Your task to perform on an android device: check storage Image 0: 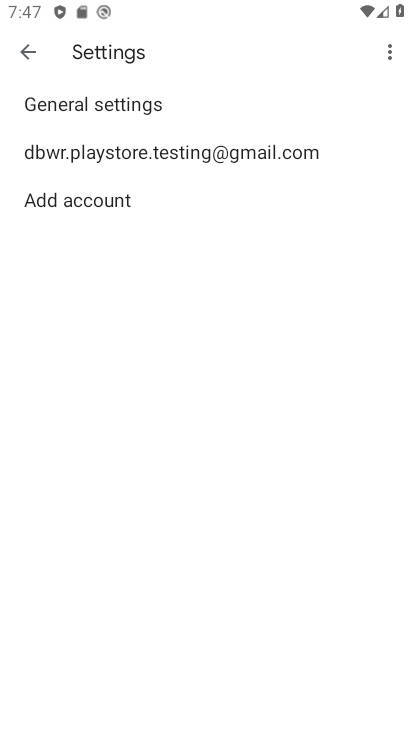
Step 0: press home button
Your task to perform on an android device: check storage Image 1: 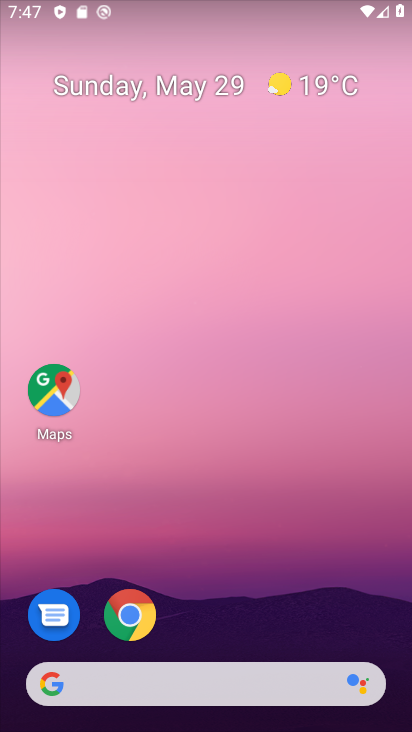
Step 1: drag from (92, 730) to (180, 52)
Your task to perform on an android device: check storage Image 2: 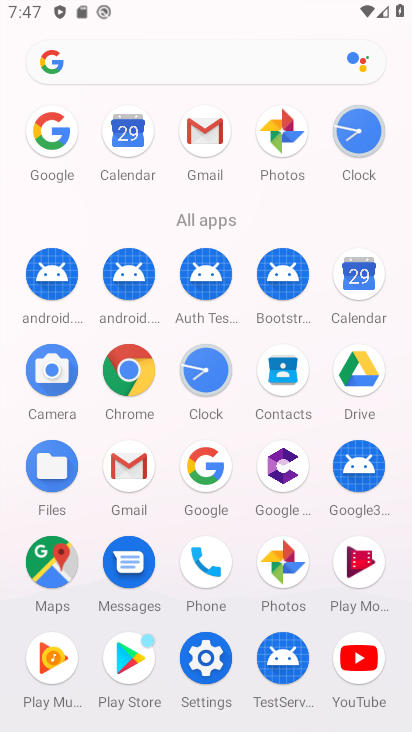
Step 2: click (216, 676)
Your task to perform on an android device: check storage Image 3: 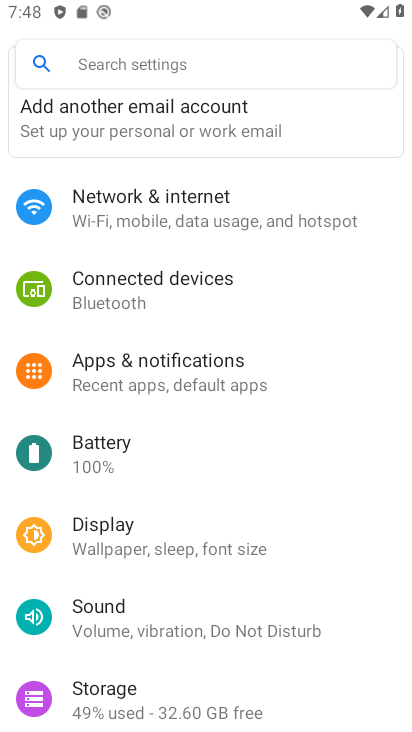
Step 3: click (186, 712)
Your task to perform on an android device: check storage Image 4: 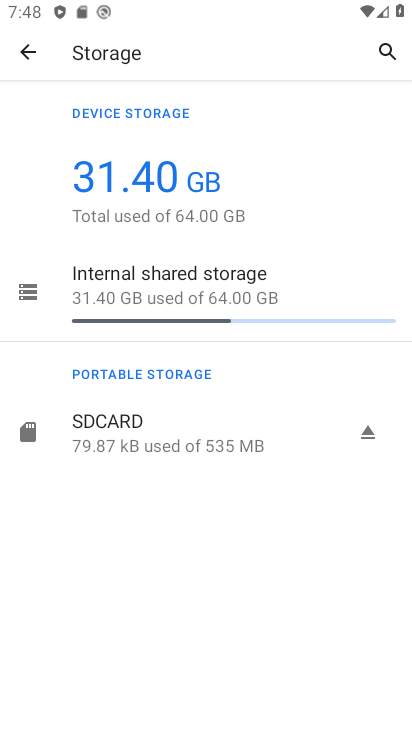
Step 4: click (331, 292)
Your task to perform on an android device: check storage Image 5: 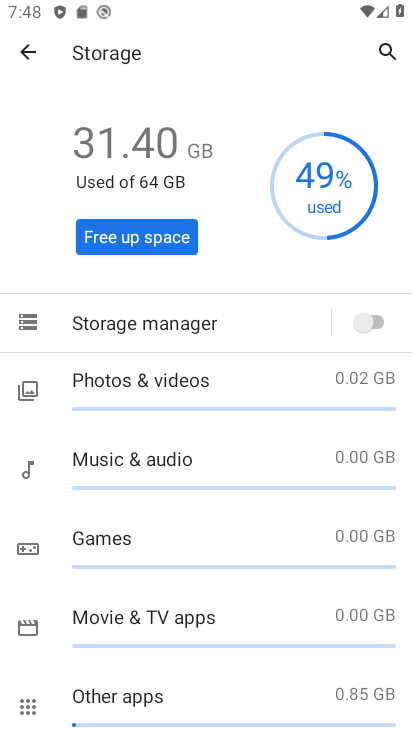
Step 5: drag from (266, 607) to (332, 188)
Your task to perform on an android device: check storage Image 6: 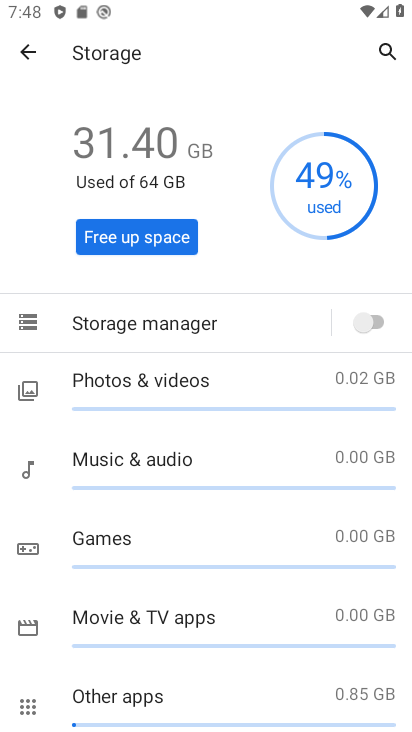
Step 6: drag from (185, 703) to (229, 227)
Your task to perform on an android device: check storage Image 7: 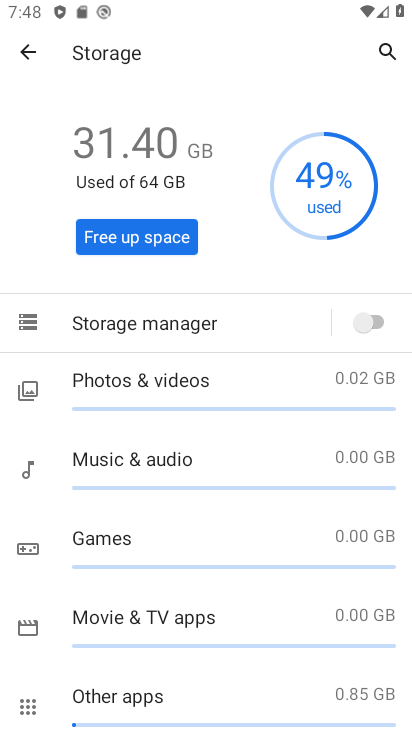
Step 7: click (22, 50)
Your task to perform on an android device: check storage Image 8: 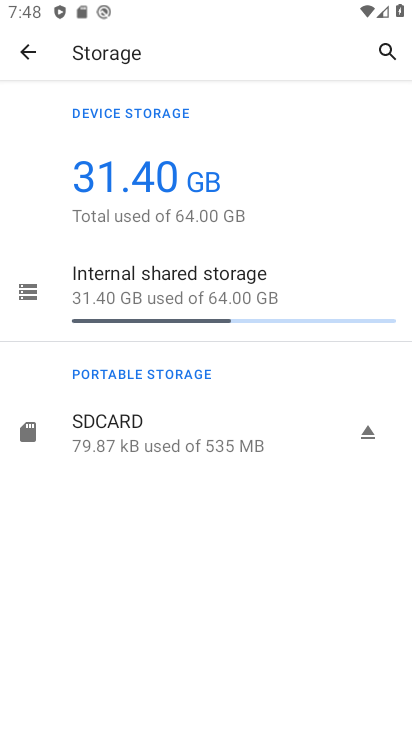
Step 8: task complete